Your task to perform on an android device: Go to CNN.com Image 0: 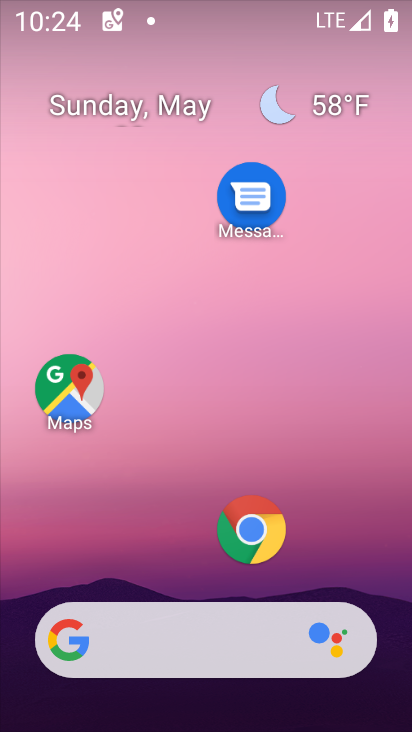
Step 0: click (251, 521)
Your task to perform on an android device: Go to CNN.com Image 1: 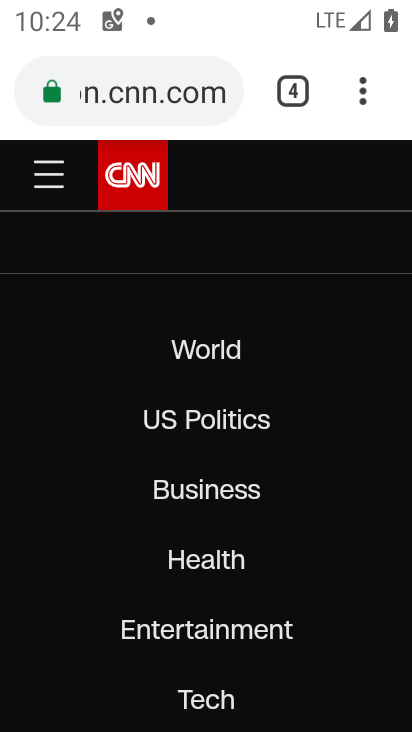
Step 1: click (147, 191)
Your task to perform on an android device: Go to CNN.com Image 2: 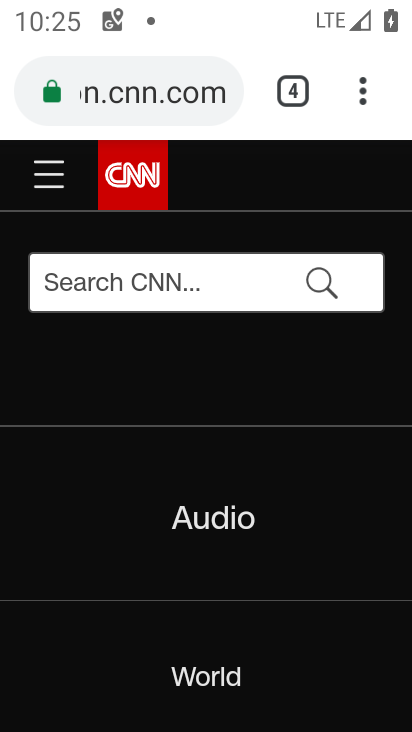
Step 2: task complete